Your task to perform on an android device: toggle wifi Image 0: 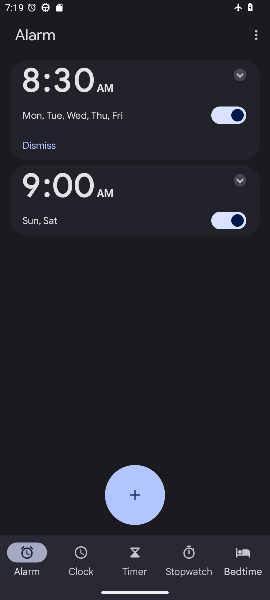
Step 0: press home button
Your task to perform on an android device: toggle wifi Image 1: 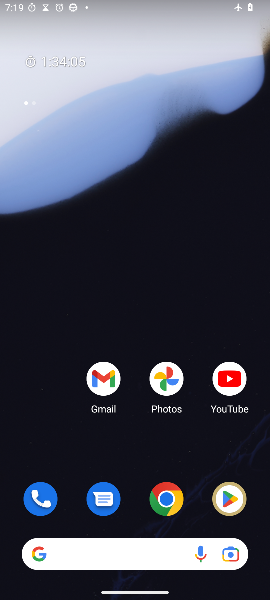
Step 1: drag from (166, 428) to (136, 53)
Your task to perform on an android device: toggle wifi Image 2: 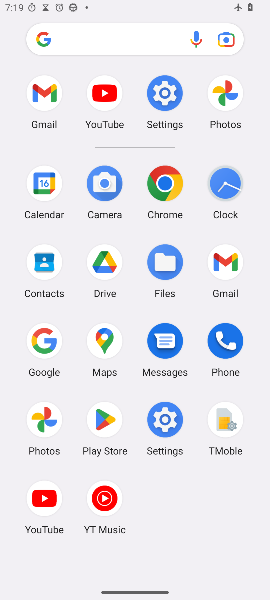
Step 2: click (164, 99)
Your task to perform on an android device: toggle wifi Image 3: 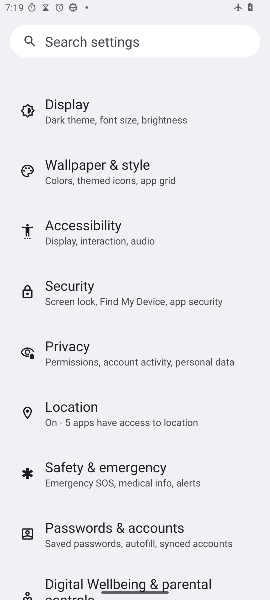
Step 3: drag from (100, 118) to (134, 491)
Your task to perform on an android device: toggle wifi Image 4: 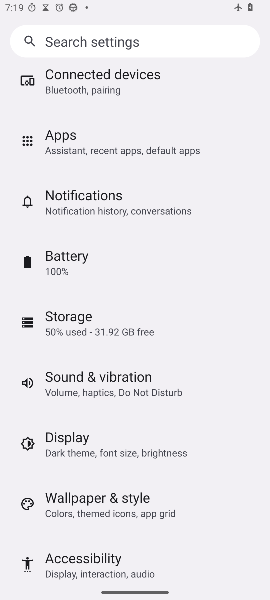
Step 4: drag from (158, 137) to (235, 460)
Your task to perform on an android device: toggle wifi Image 5: 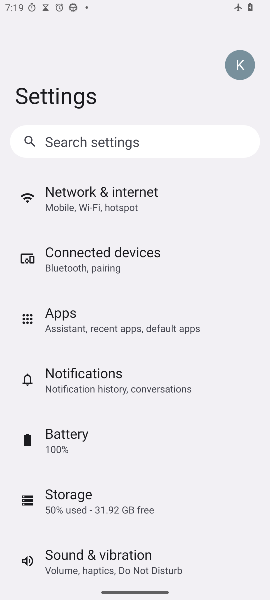
Step 5: click (115, 200)
Your task to perform on an android device: toggle wifi Image 6: 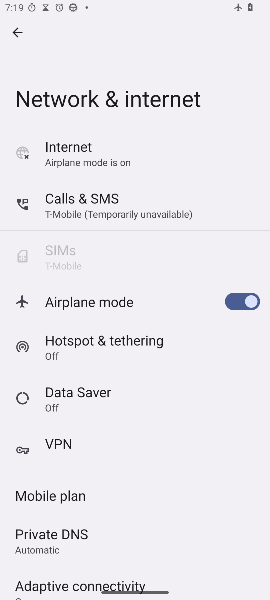
Step 6: click (94, 149)
Your task to perform on an android device: toggle wifi Image 7: 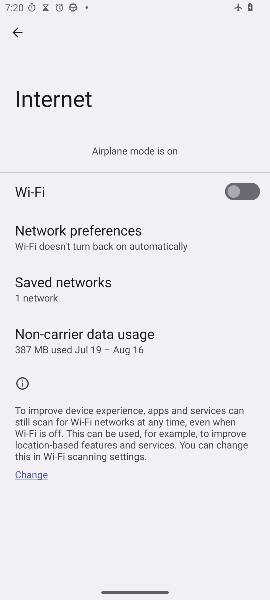
Step 7: click (244, 193)
Your task to perform on an android device: toggle wifi Image 8: 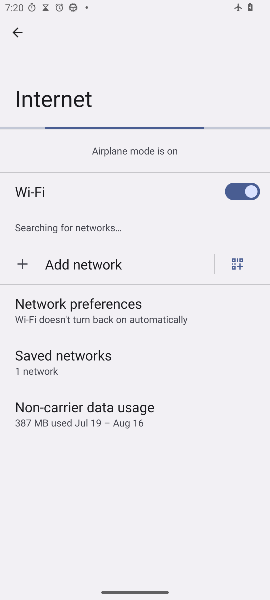
Step 8: task complete